Your task to perform on an android device: Do I have any events today? Image 0: 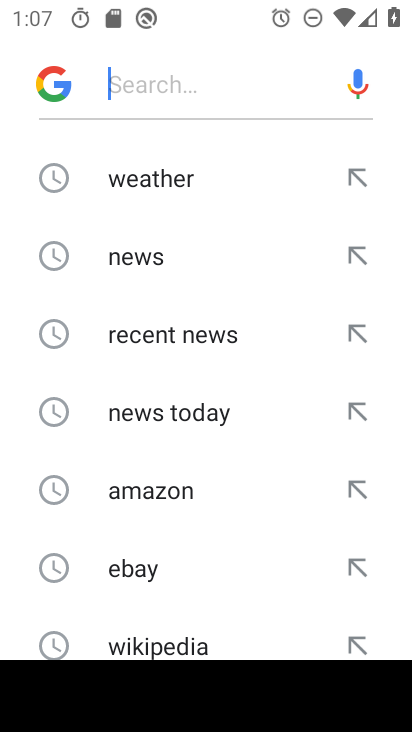
Step 0: press back button
Your task to perform on an android device: Do I have any events today? Image 1: 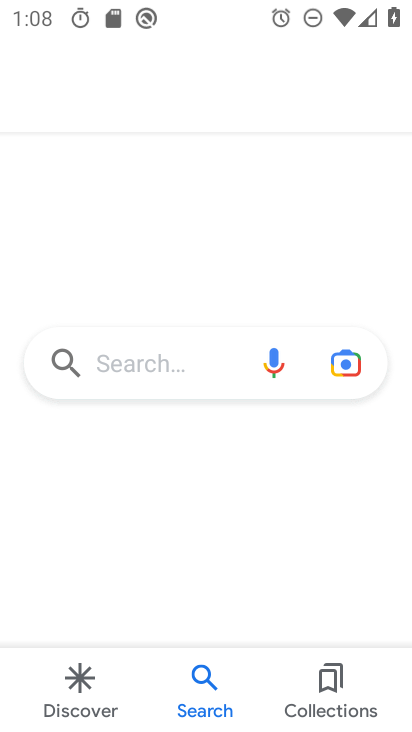
Step 1: press back button
Your task to perform on an android device: Do I have any events today? Image 2: 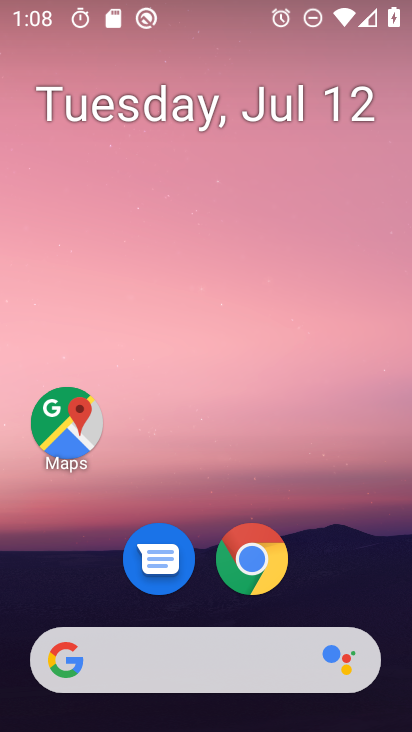
Step 2: drag from (167, 613) to (248, 31)
Your task to perform on an android device: Do I have any events today? Image 3: 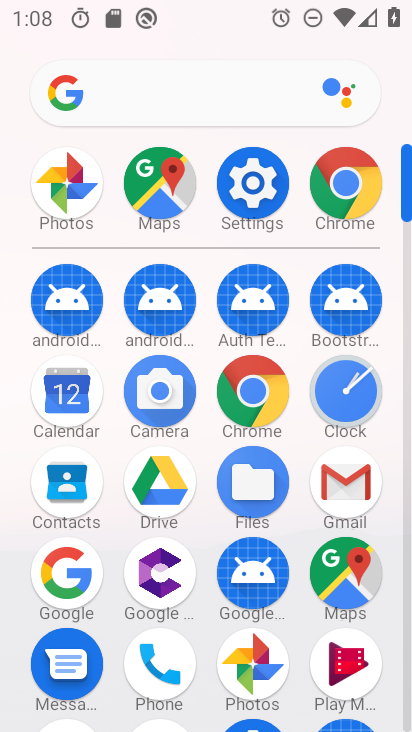
Step 3: click (69, 411)
Your task to perform on an android device: Do I have any events today? Image 4: 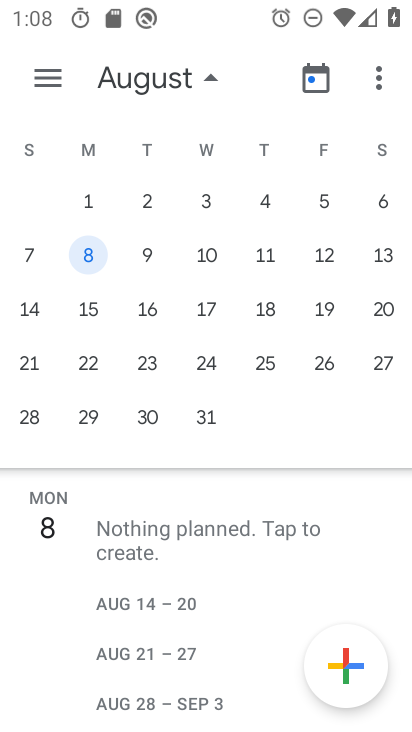
Step 4: drag from (73, 241) to (379, 268)
Your task to perform on an android device: Do I have any events today? Image 5: 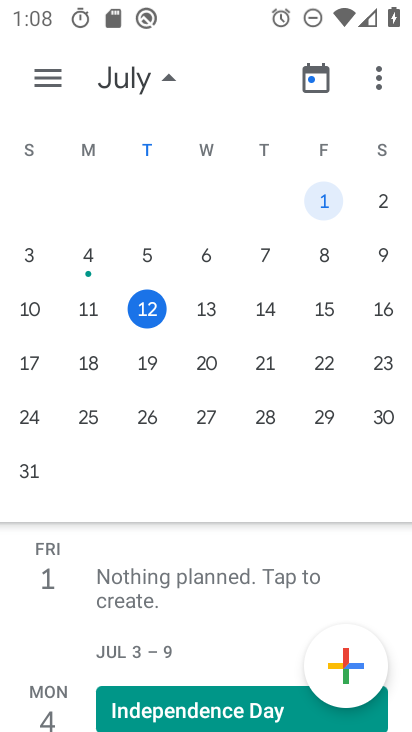
Step 5: click (148, 305)
Your task to perform on an android device: Do I have any events today? Image 6: 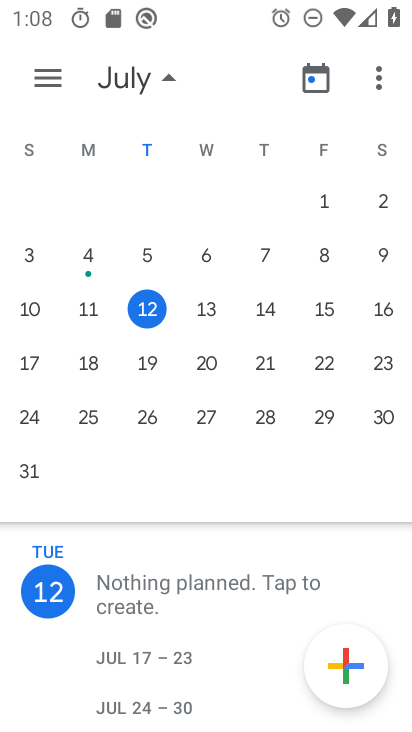
Step 6: task complete